Your task to perform on an android device: star an email in the gmail app Image 0: 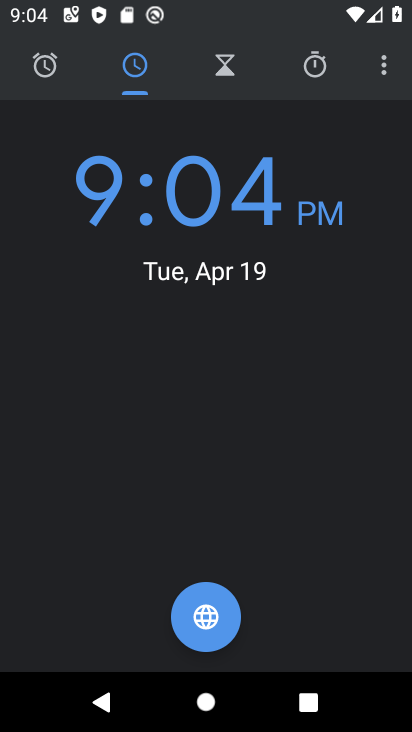
Step 0: press home button
Your task to perform on an android device: star an email in the gmail app Image 1: 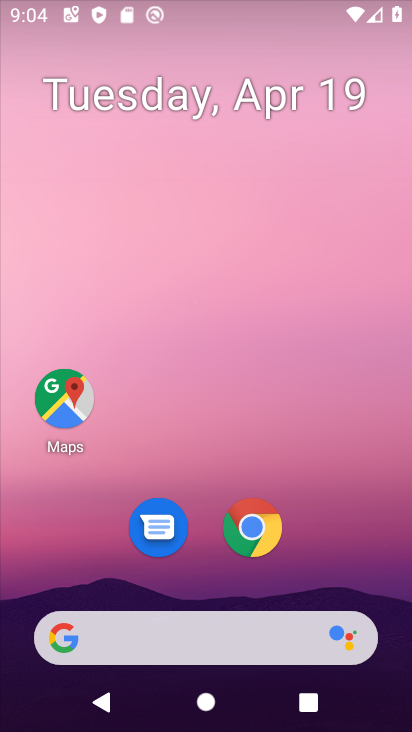
Step 1: drag from (248, 603) to (202, 213)
Your task to perform on an android device: star an email in the gmail app Image 2: 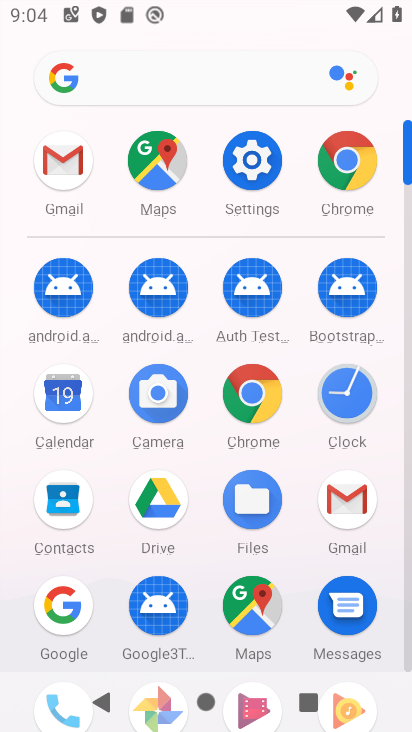
Step 2: click (59, 158)
Your task to perform on an android device: star an email in the gmail app Image 3: 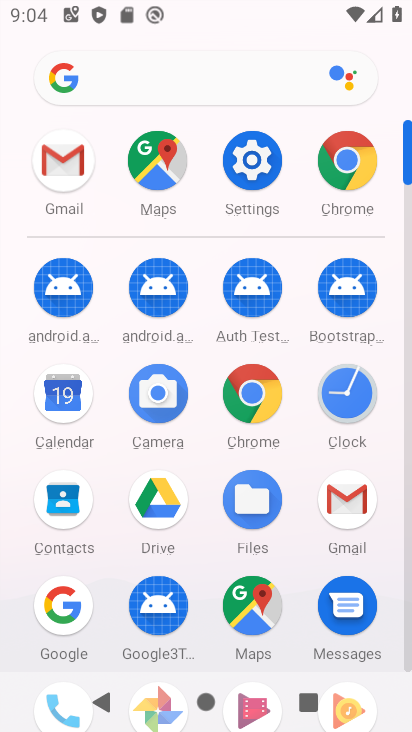
Step 3: click (72, 150)
Your task to perform on an android device: star an email in the gmail app Image 4: 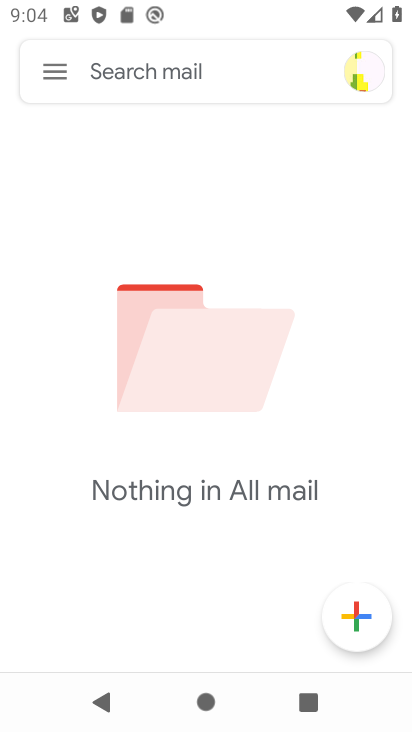
Step 4: click (47, 72)
Your task to perform on an android device: star an email in the gmail app Image 5: 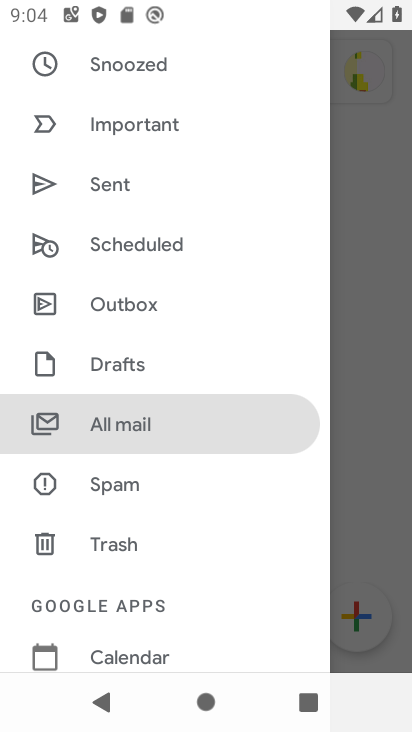
Step 5: drag from (164, 172) to (201, 628)
Your task to perform on an android device: star an email in the gmail app Image 6: 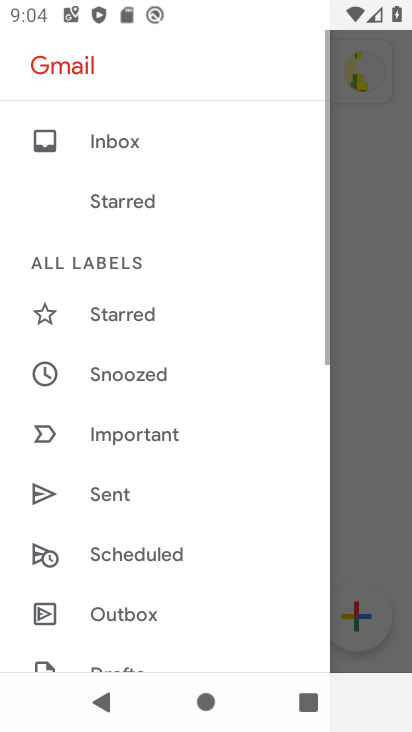
Step 6: click (118, 316)
Your task to perform on an android device: star an email in the gmail app Image 7: 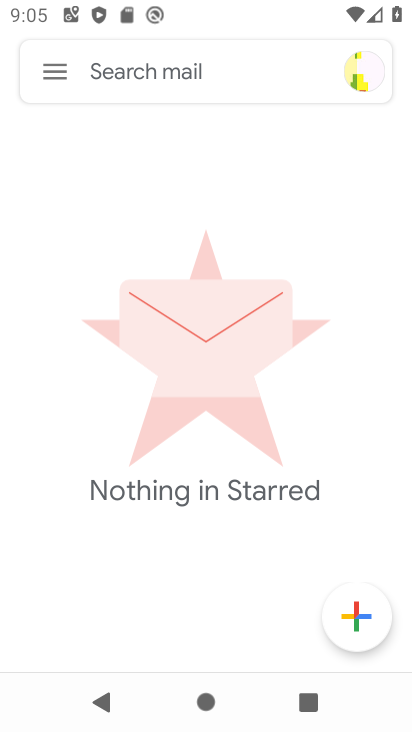
Step 7: task complete